Your task to perform on an android device: Open settings on Google Maps Image 0: 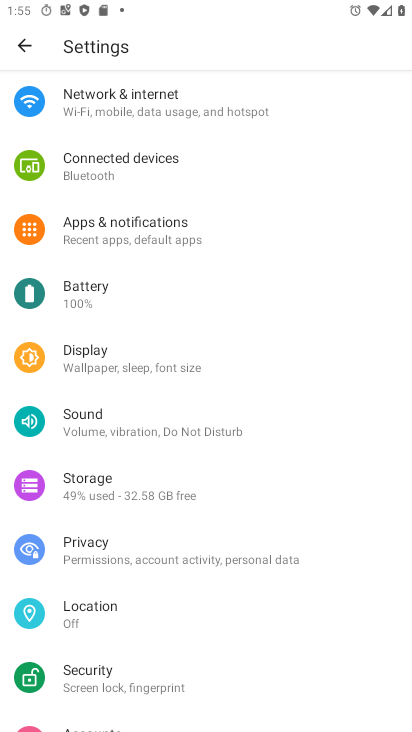
Step 0: press home button
Your task to perform on an android device: Open settings on Google Maps Image 1: 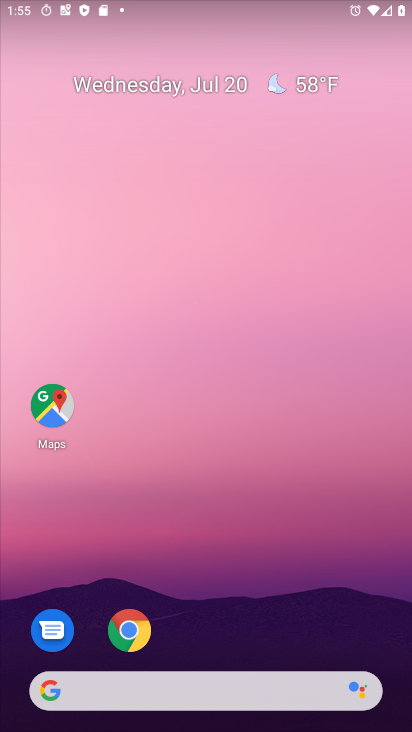
Step 1: click (57, 402)
Your task to perform on an android device: Open settings on Google Maps Image 2: 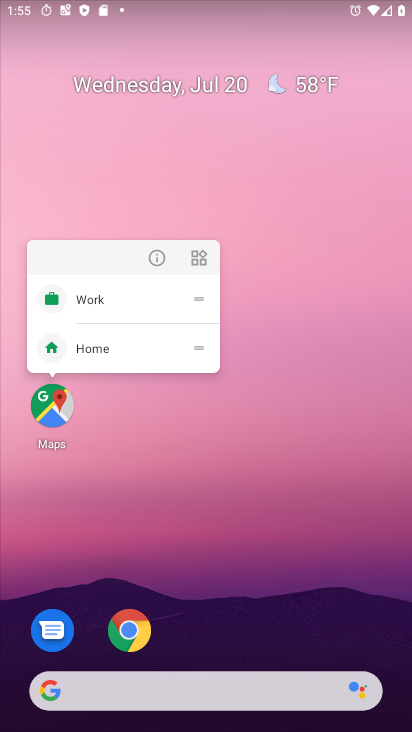
Step 2: click (54, 407)
Your task to perform on an android device: Open settings on Google Maps Image 3: 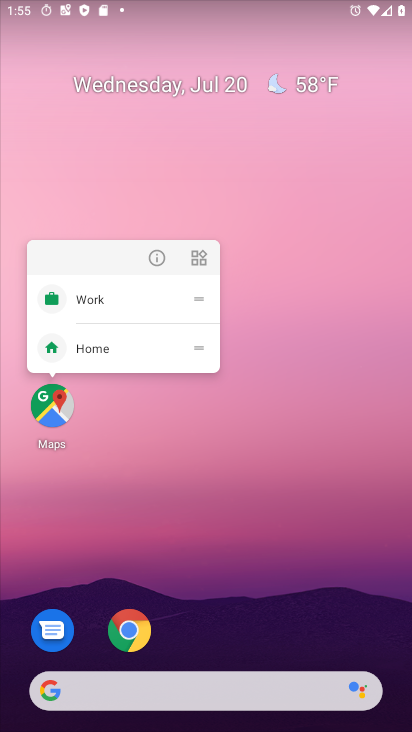
Step 3: click (51, 410)
Your task to perform on an android device: Open settings on Google Maps Image 4: 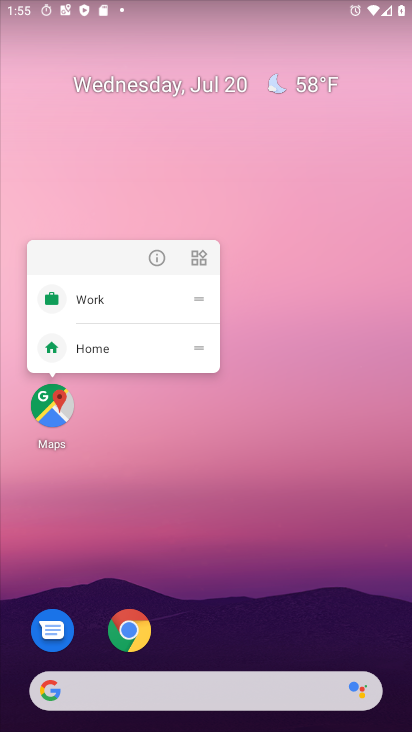
Step 4: click (51, 410)
Your task to perform on an android device: Open settings on Google Maps Image 5: 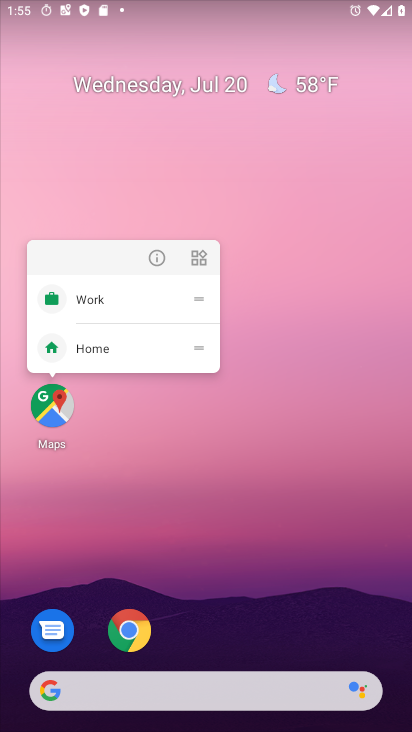
Step 5: click (53, 410)
Your task to perform on an android device: Open settings on Google Maps Image 6: 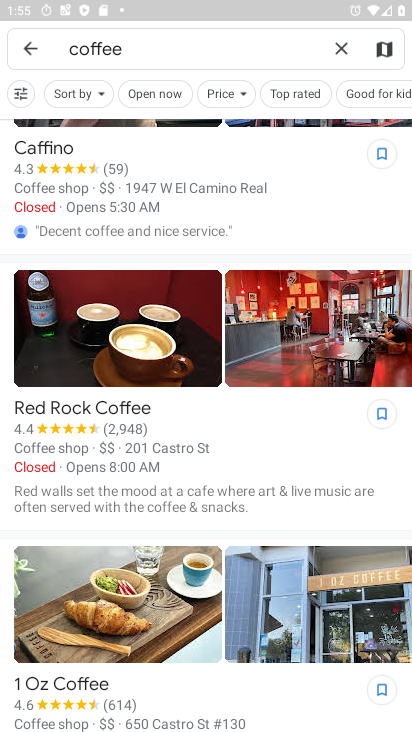
Step 6: click (33, 46)
Your task to perform on an android device: Open settings on Google Maps Image 7: 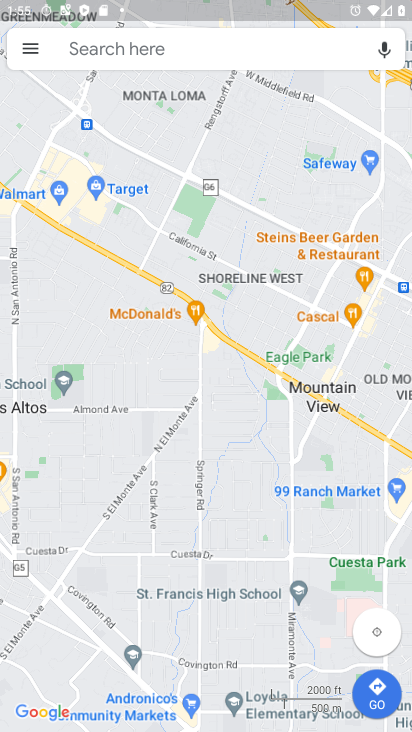
Step 7: click (30, 51)
Your task to perform on an android device: Open settings on Google Maps Image 8: 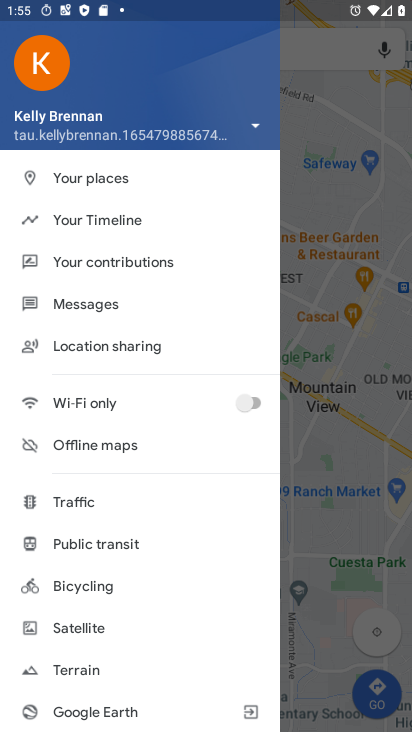
Step 8: drag from (143, 625) to (205, 133)
Your task to perform on an android device: Open settings on Google Maps Image 9: 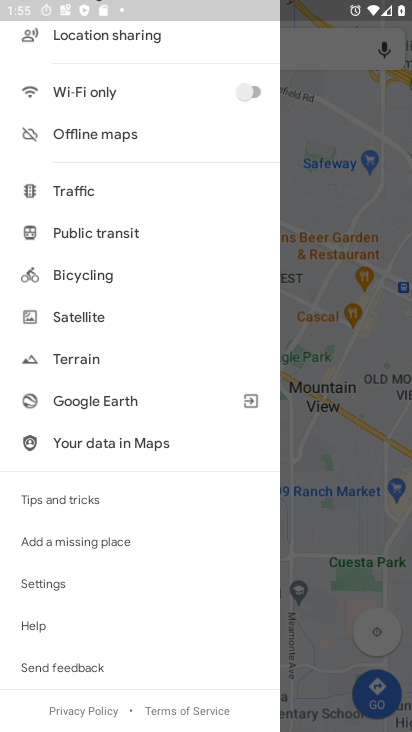
Step 9: click (64, 587)
Your task to perform on an android device: Open settings on Google Maps Image 10: 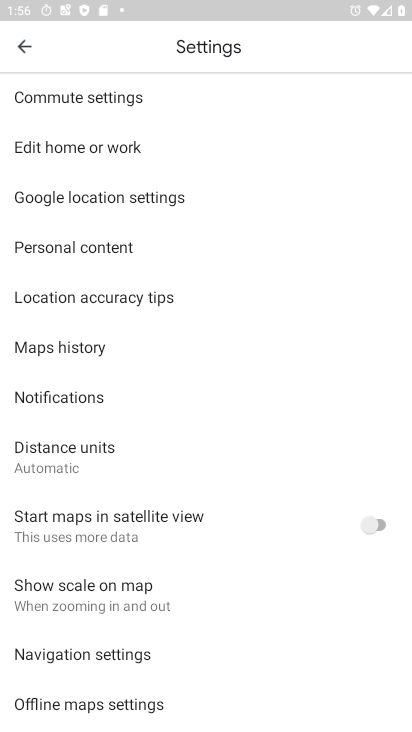
Step 10: task complete